Your task to perform on an android device: empty trash in google photos Image 0: 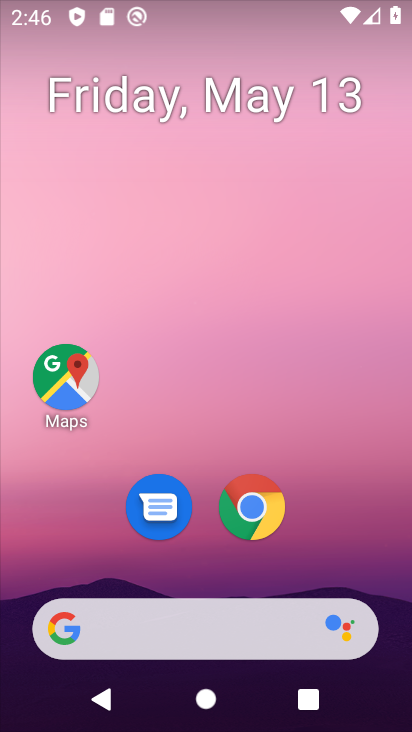
Step 0: drag from (325, 513) to (326, 16)
Your task to perform on an android device: empty trash in google photos Image 1: 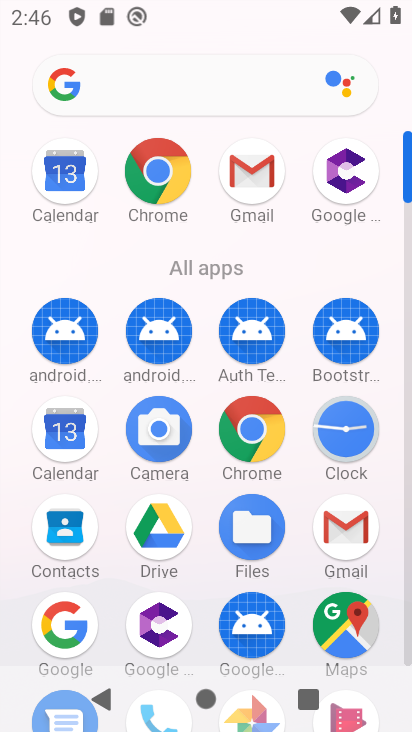
Step 1: drag from (232, 585) to (303, 7)
Your task to perform on an android device: empty trash in google photos Image 2: 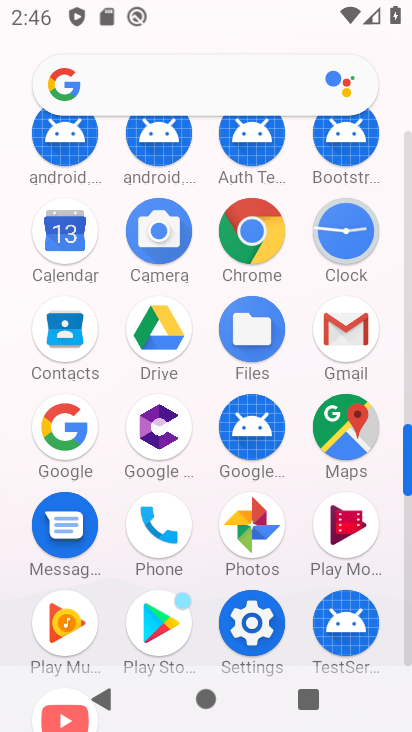
Step 2: click (231, 535)
Your task to perform on an android device: empty trash in google photos Image 3: 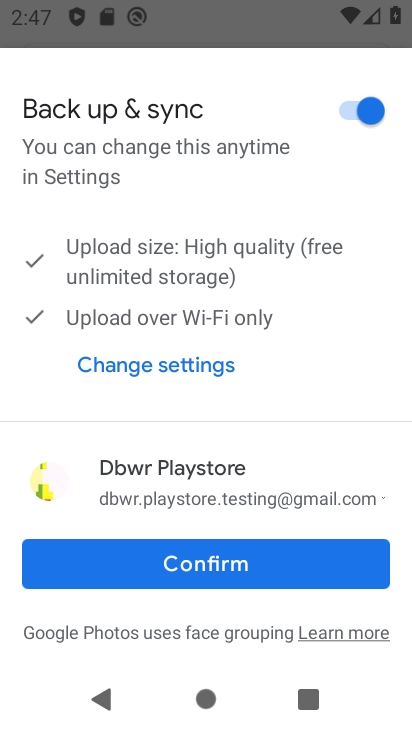
Step 3: click (133, 559)
Your task to perform on an android device: empty trash in google photos Image 4: 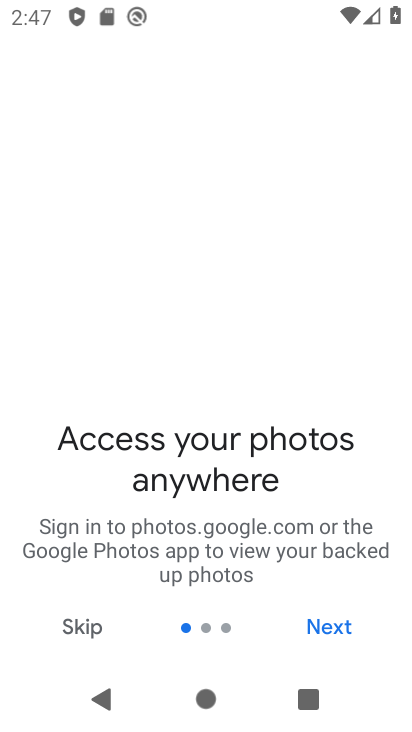
Step 4: click (331, 621)
Your task to perform on an android device: empty trash in google photos Image 5: 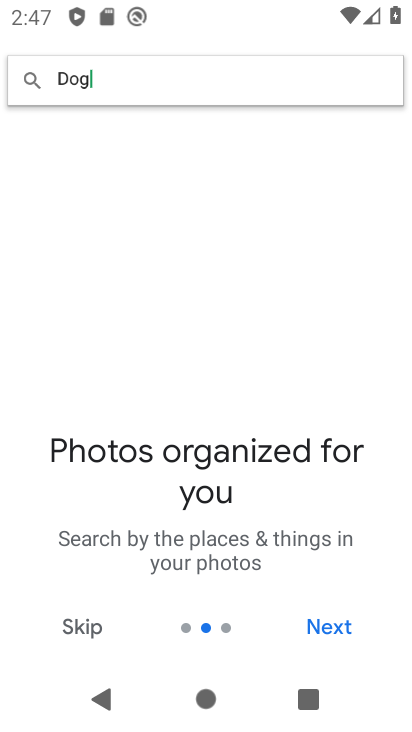
Step 5: click (331, 621)
Your task to perform on an android device: empty trash in google photos Image 6: 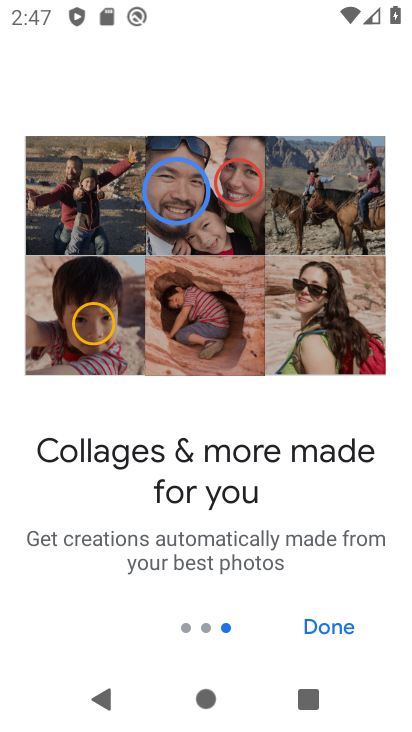
Step 6: click (331, 621)
Your task to perform on an android device: empty trash in google photos Image 7: 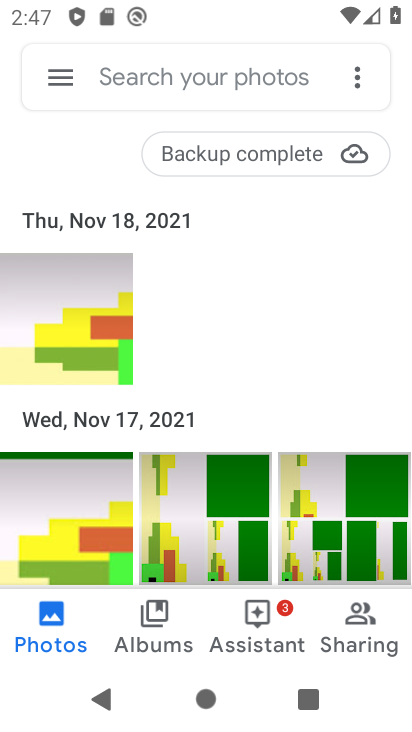
Step 7: click (60, 78)
Your task to perform on an android device: empty trash in google photos Image 8: 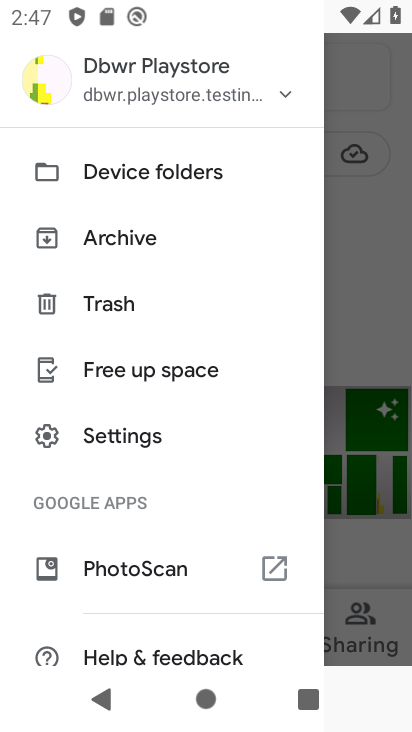
Step 8: click (67, 295)
Your task to perform on an android device: empty trash in google photos Image 9: 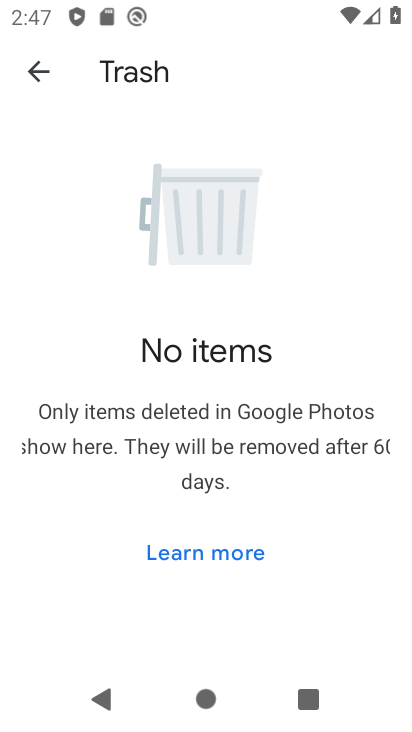
Step 9: task complete